Your task to perform on an android device: toggle show notifications on the lock screen Image 0: 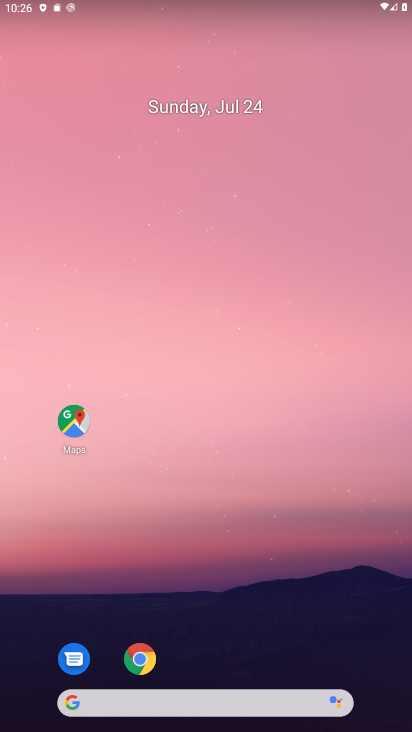
Step 0: press home button
Your task to perform on an android device: toggle show notifications on the lock screen Image 1: 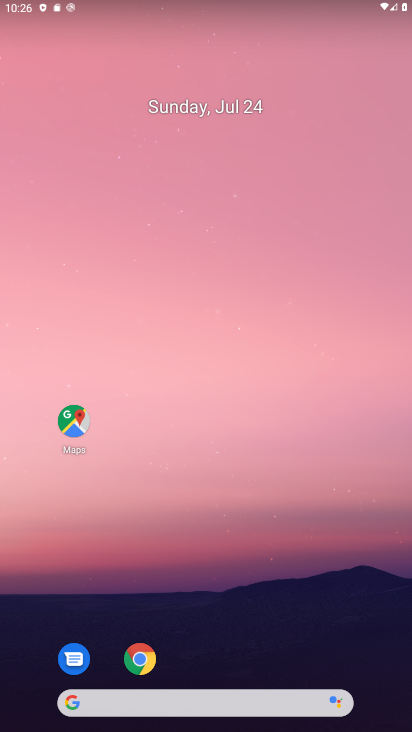
Step 1: drag from (258, 636) to (263, 3)
Your task to perform on an android device: toggle show notifications on the lock screen Image 2: 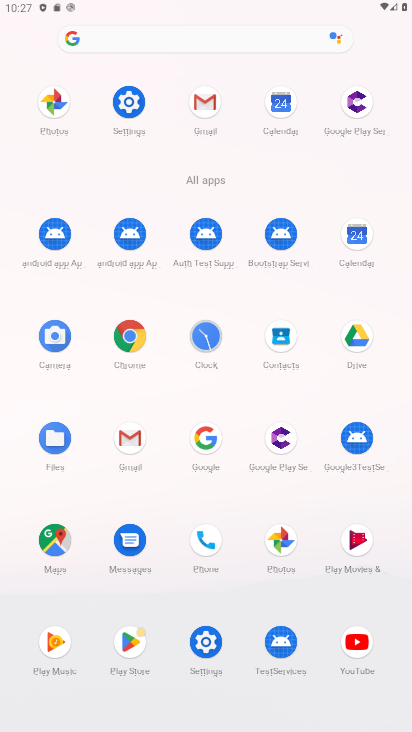
Step 2: click (142, 89)
Your task to perform on an android device: toggle show notifications on the lock screen Image 3: 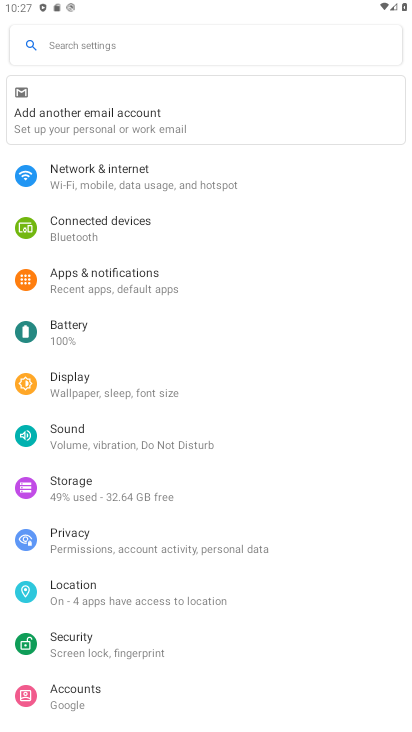
Step 3: click (131, 289)
Your task to perform on an android device: toggle show notifications on the lock screen Image 4: 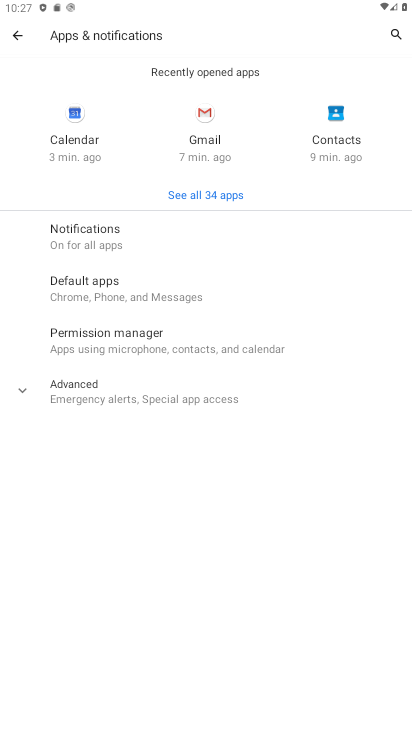
Step 4: click (96, 237)
Your task to perform on an android device: toggle show notifications on the lock screen Image 5: 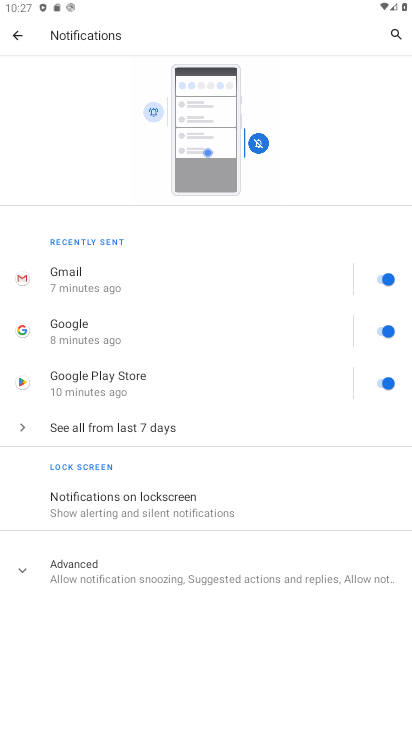
Step 5: click (77, 511)
Your task to perform on an android device: toggle show notifications on the lock screen Image 6: 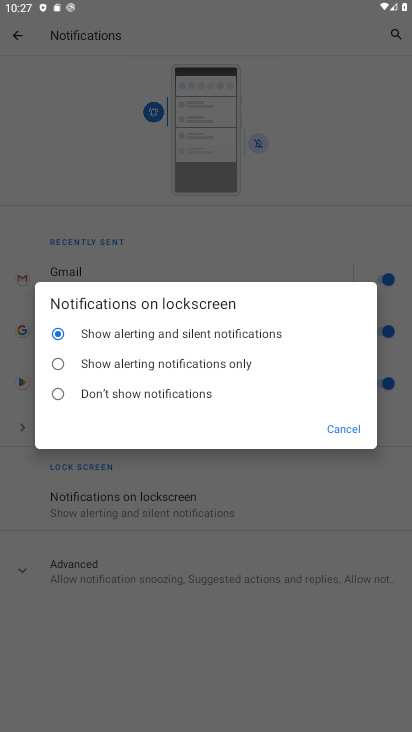
Step 6: click (102, 359)
Your task to perform on an android device: toggle show notifications on the lock screen Image 7: 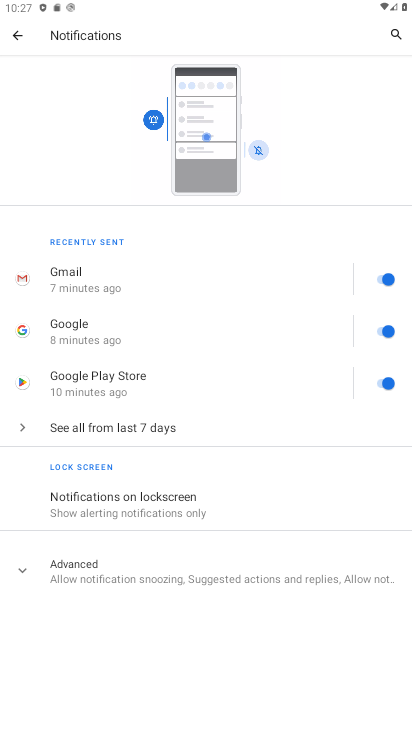
Step 7: task complete